Your task to perform on an android device: Open calendar and show me the first week of next month Image 0: 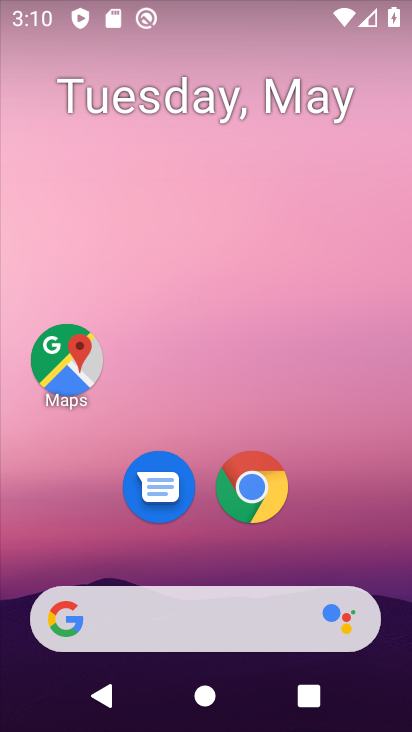
Step 0: drag from (211, 573) to (128, 50)
Your task to perform on an android device: Open calendar and show me the first week of next month Image 1: 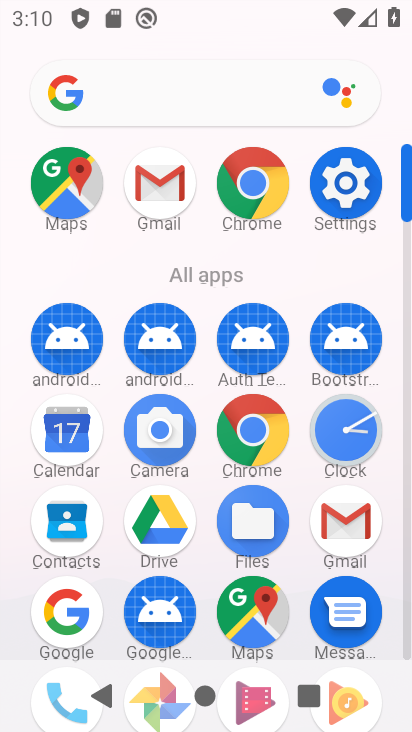
Step 1: click (55, 436)
Your task to perform on an android device: Open calendar and show me the first week of next month Image 2: 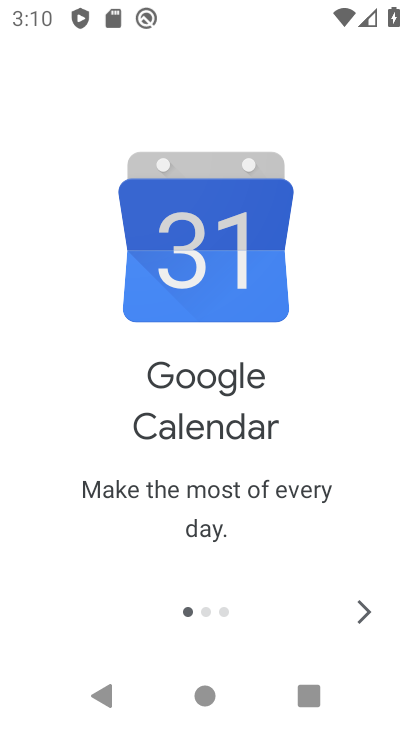
Step 2: click (352, 618)
Your task to perform on an android device: Open calendar and show me the first week of next month Image 3: 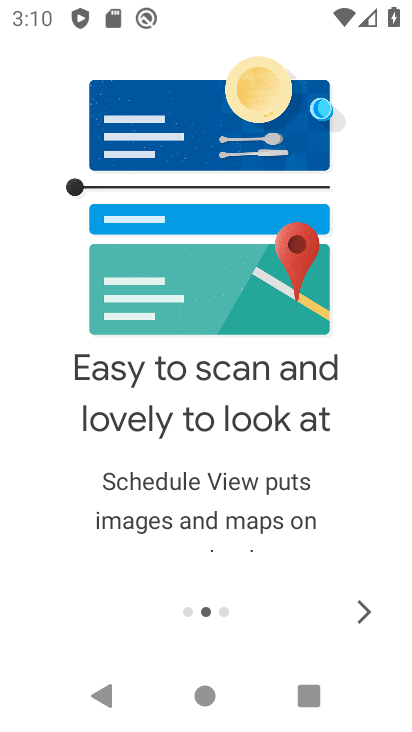
Step 3: click (352, 618)
Your task to perform on an android device: Open calendar and show me the first week of next month Image 4: 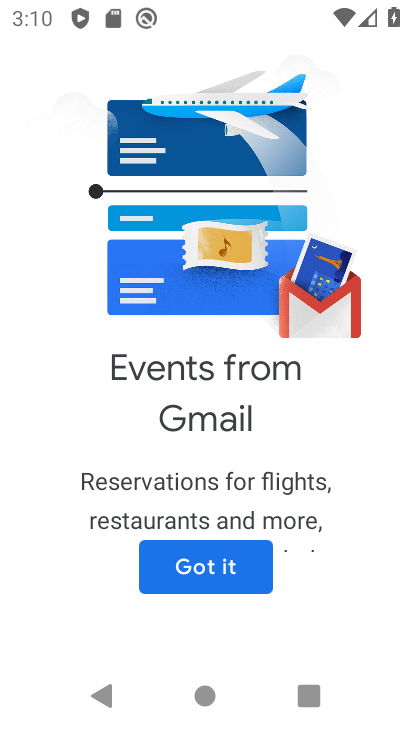
Step 4: click (207, 578)
Your task to perform on an android device: Open calendar and show me the first week of next month Image 5: 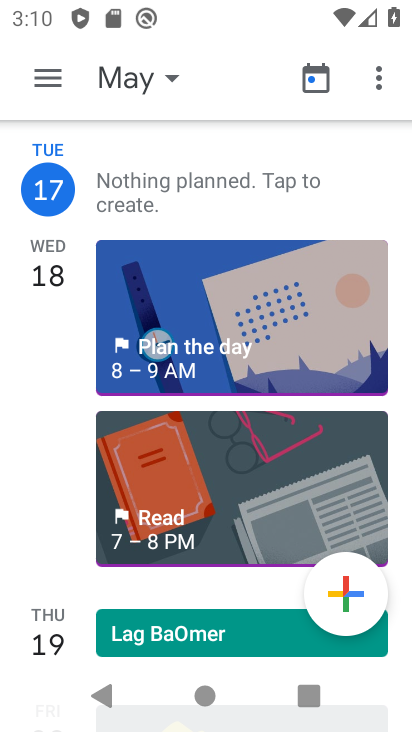
Step 5: click (40, 65)
Your task to perform on an android device: Open calendar and show me the first week of next month Image 6: 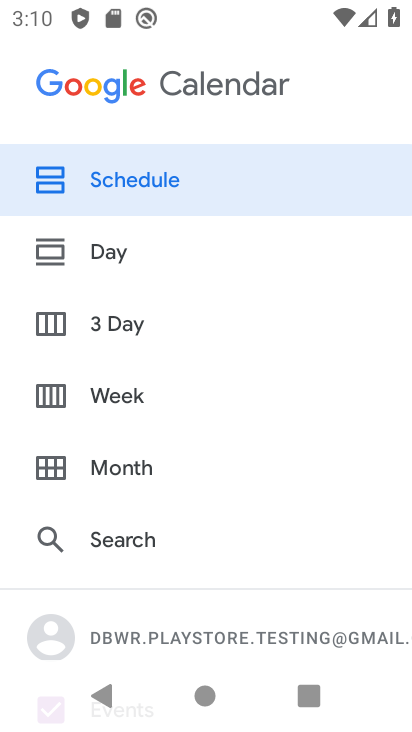
Step 6: click (103, 381)
Your task to perform on an android device: Open calendar and show me the first week of next month Image 7: 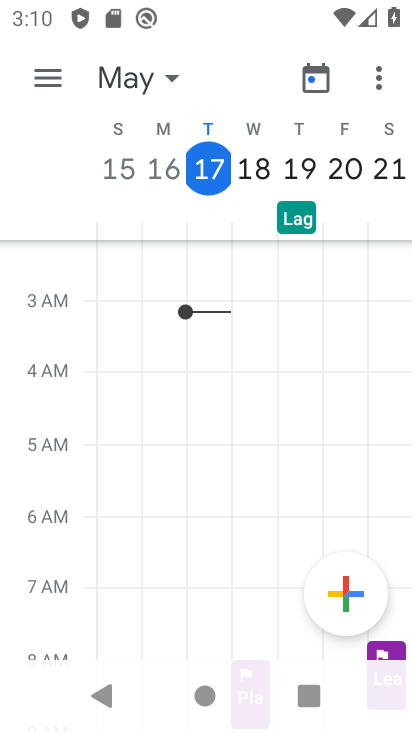
Step 7: task complete